Your task to perform on an android device: see creations saved in the google photos Image 0: 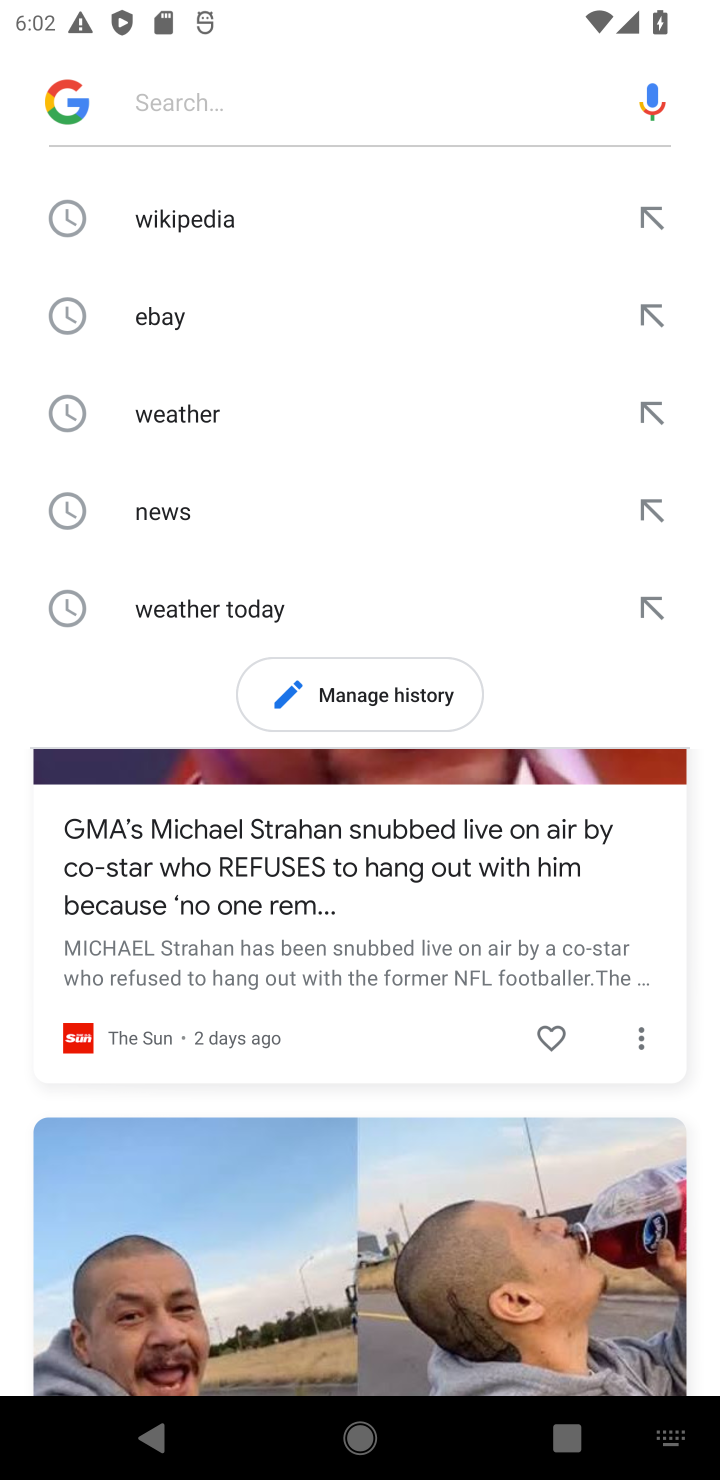
Step 0: press home button
Your task to perform on an android device: see creations saved in the google photos Image 1: 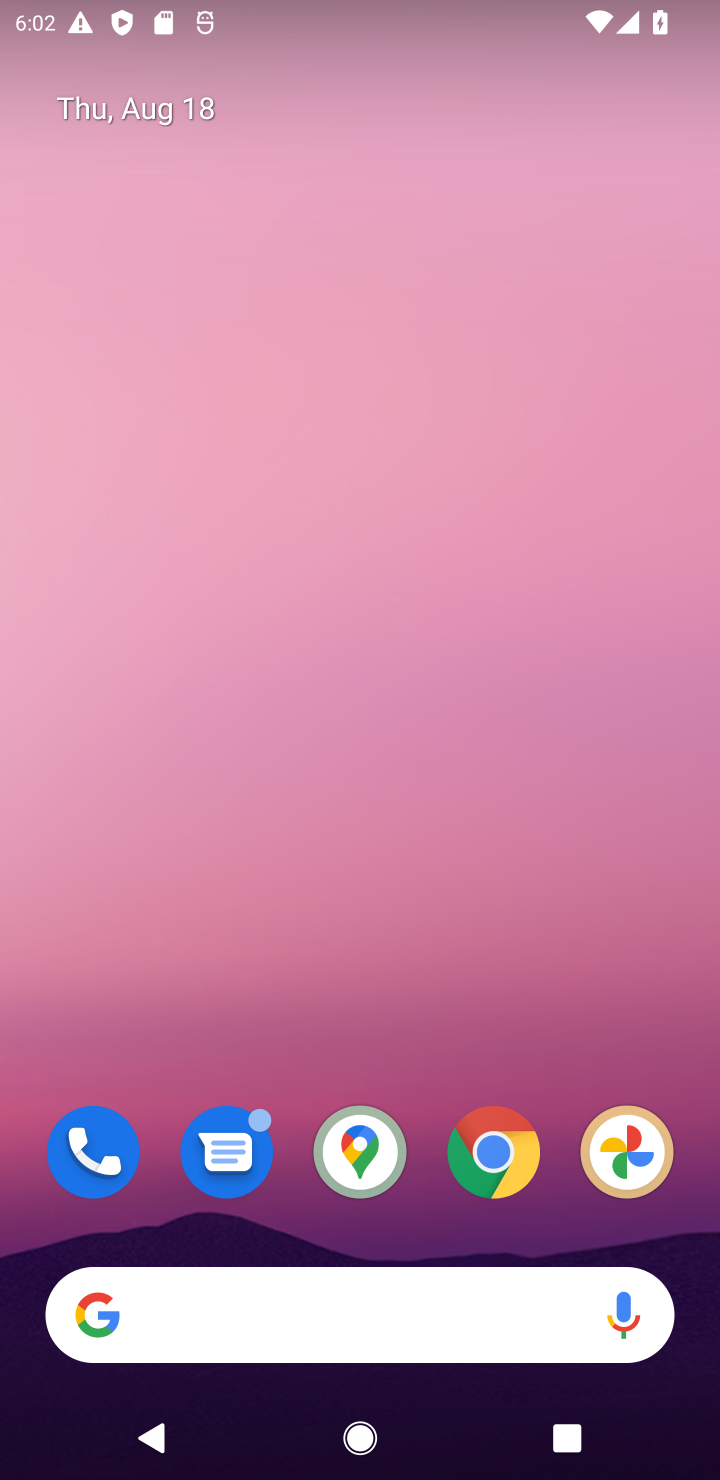
Step 1: drag from (445, 1189) to (514, 188)
Your task to perform on an android device: see creations saved in the google photos Image 2: 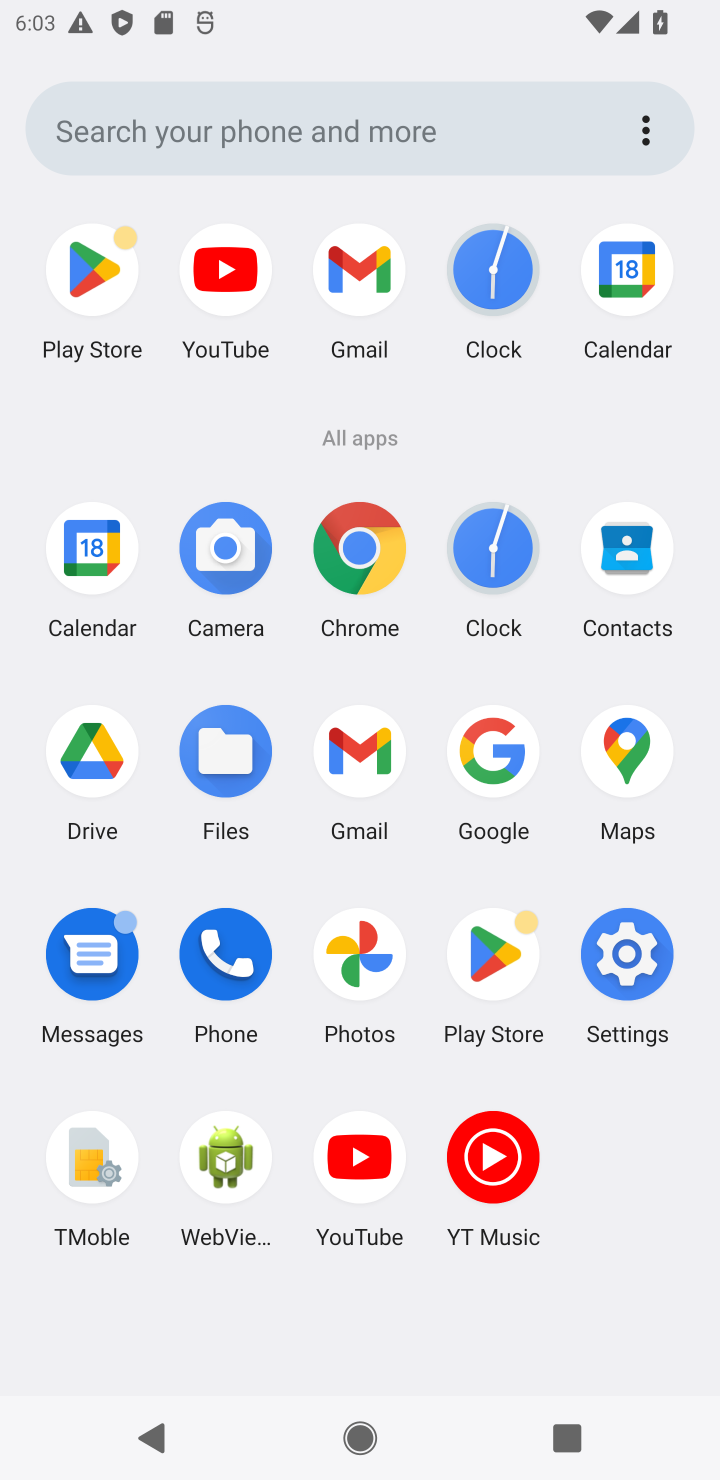
Step 2: click (362, 956)
Your task to perform on an android device: see creations saved in the google photos Image 3: 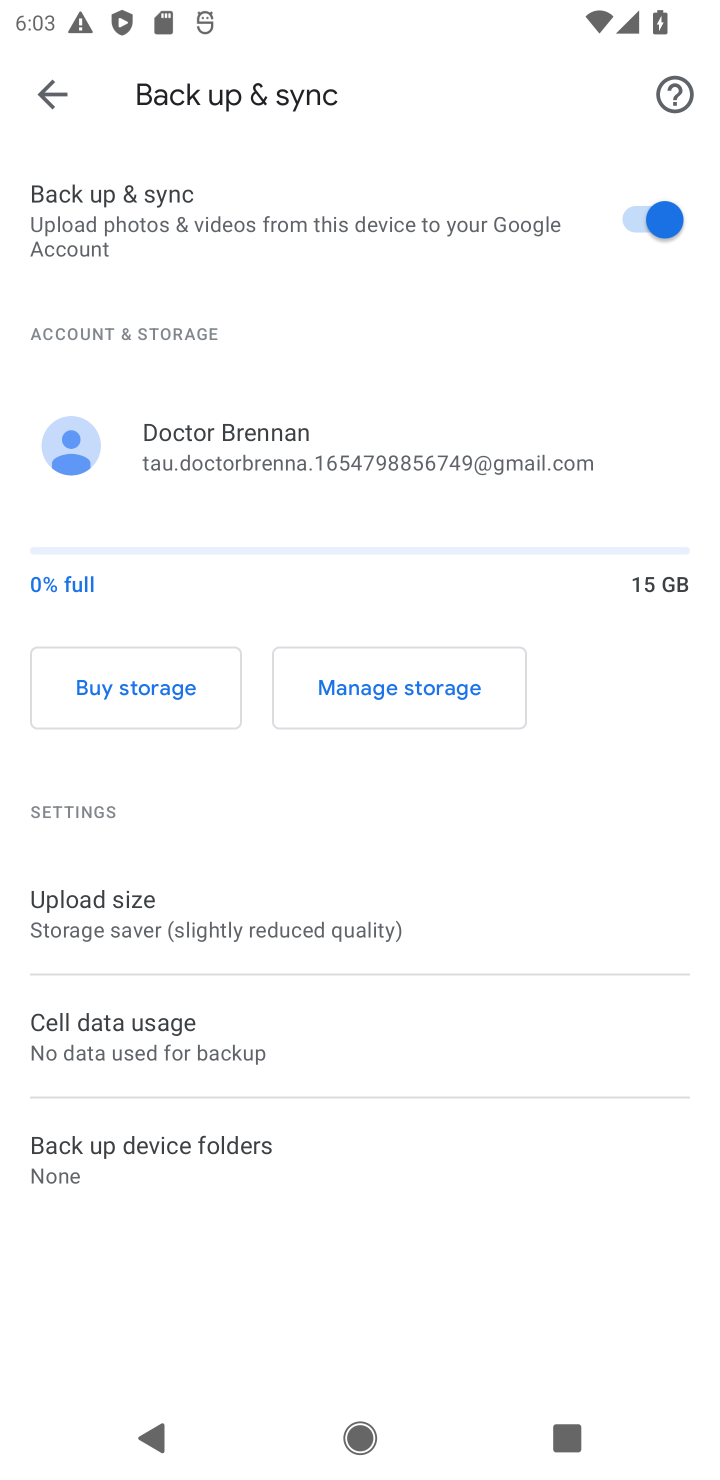
Step 3: click (58, 88)
Your task to perform on an android device: see creations saved in the google photos Image 4: 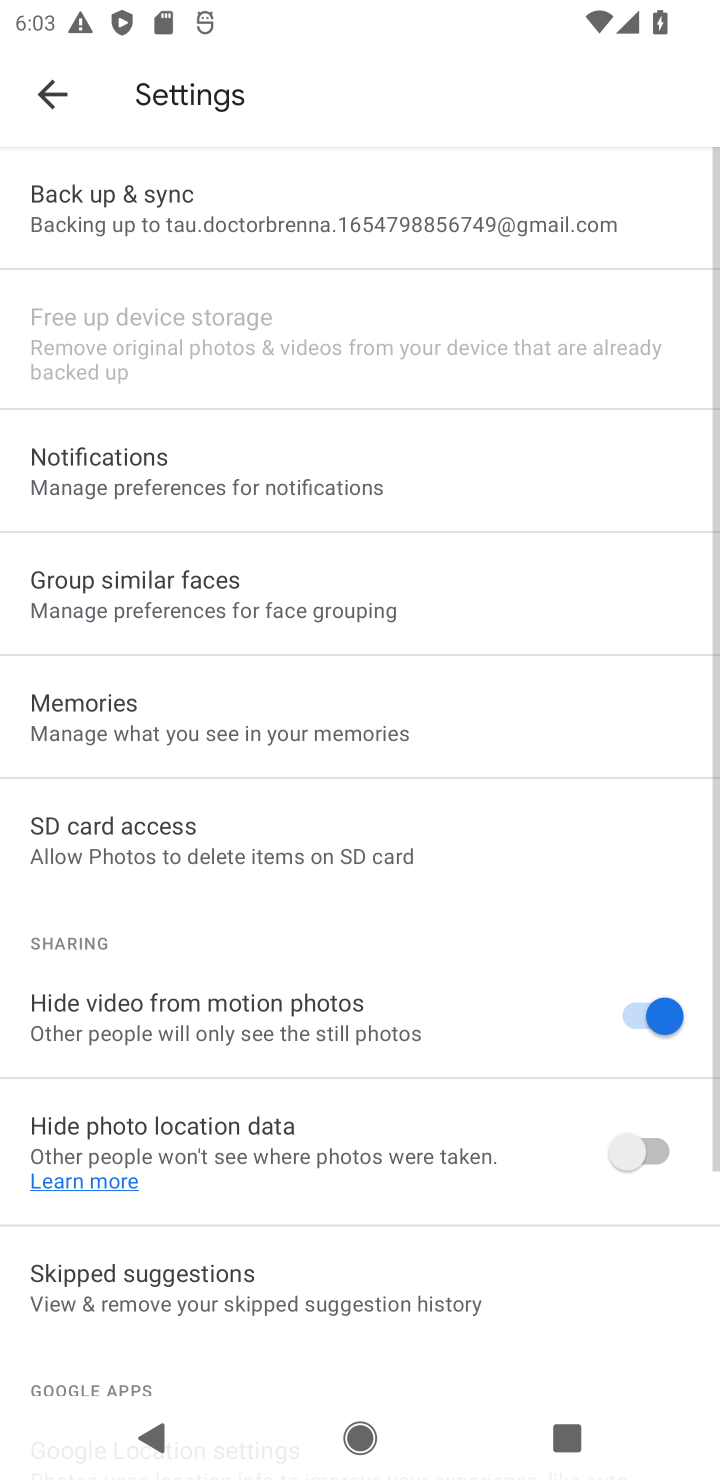
Step 4: click (58, 88)
Your task to perform on an android device: see creations saved in the google photos Image 5: 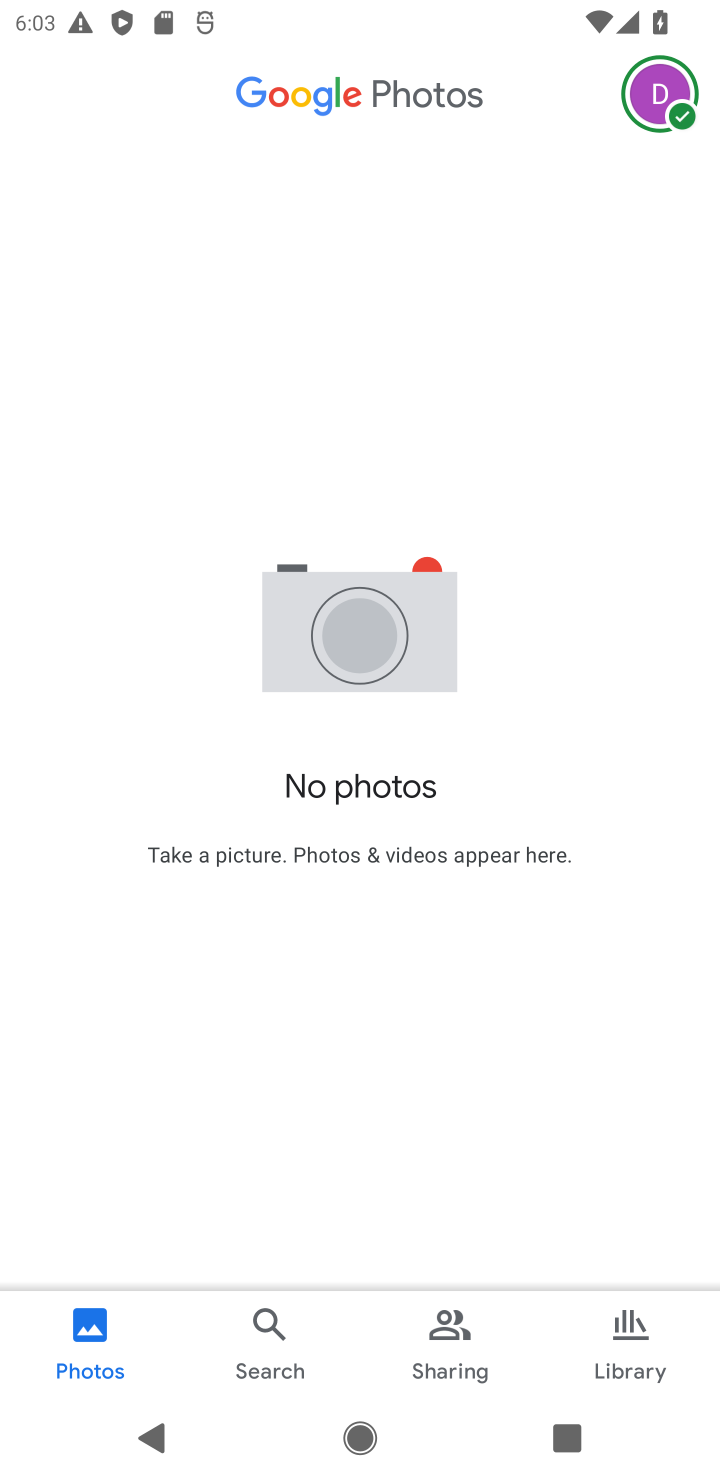
Step 5: click (271, 1363)
Your task to perform on an android device: see creations saved in the google photos Image 6: 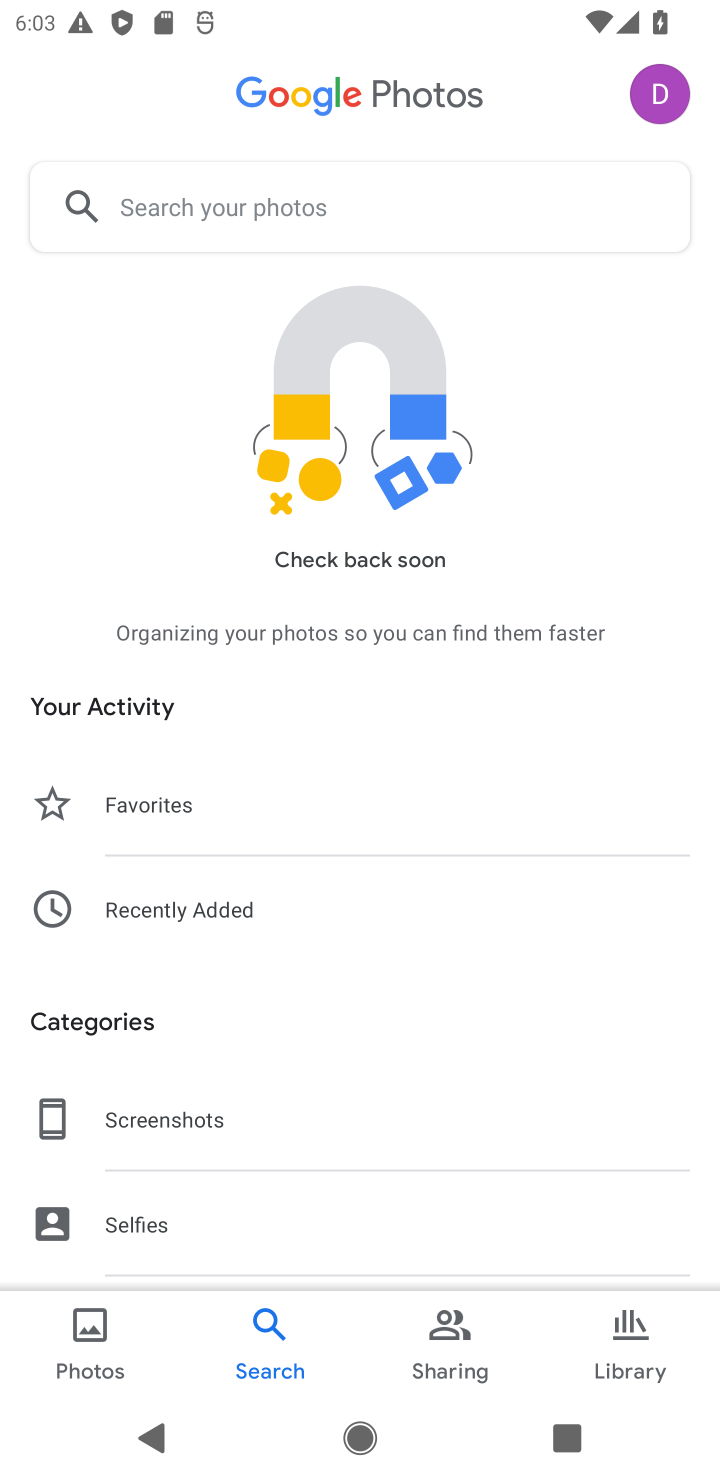
Step 6: drag from (252, 1118) to (212, 464)
Your task to perform on an android device: see creations saved in the google photos Image 7: 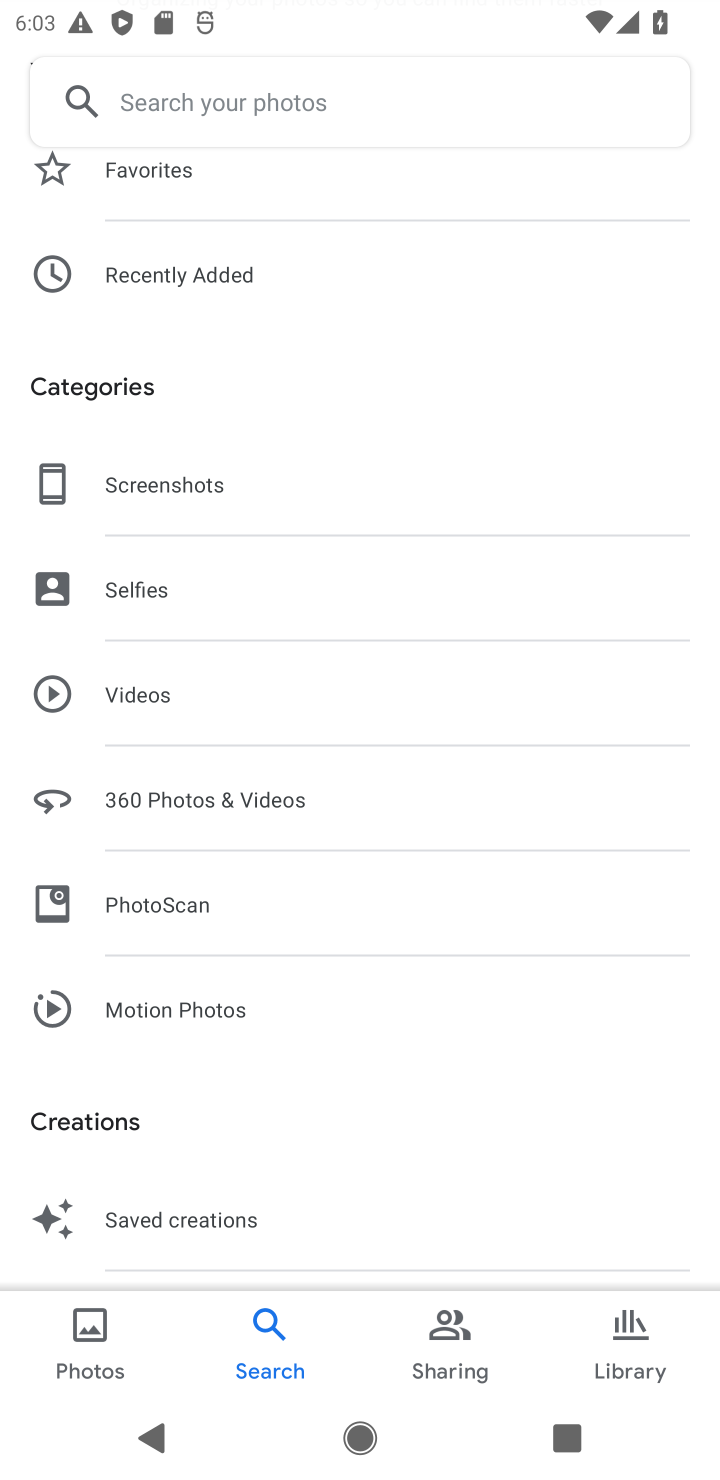
Step 7: click (182, 1216)
Your task to perform on an android device: see creations saved in the google photos Image 8: 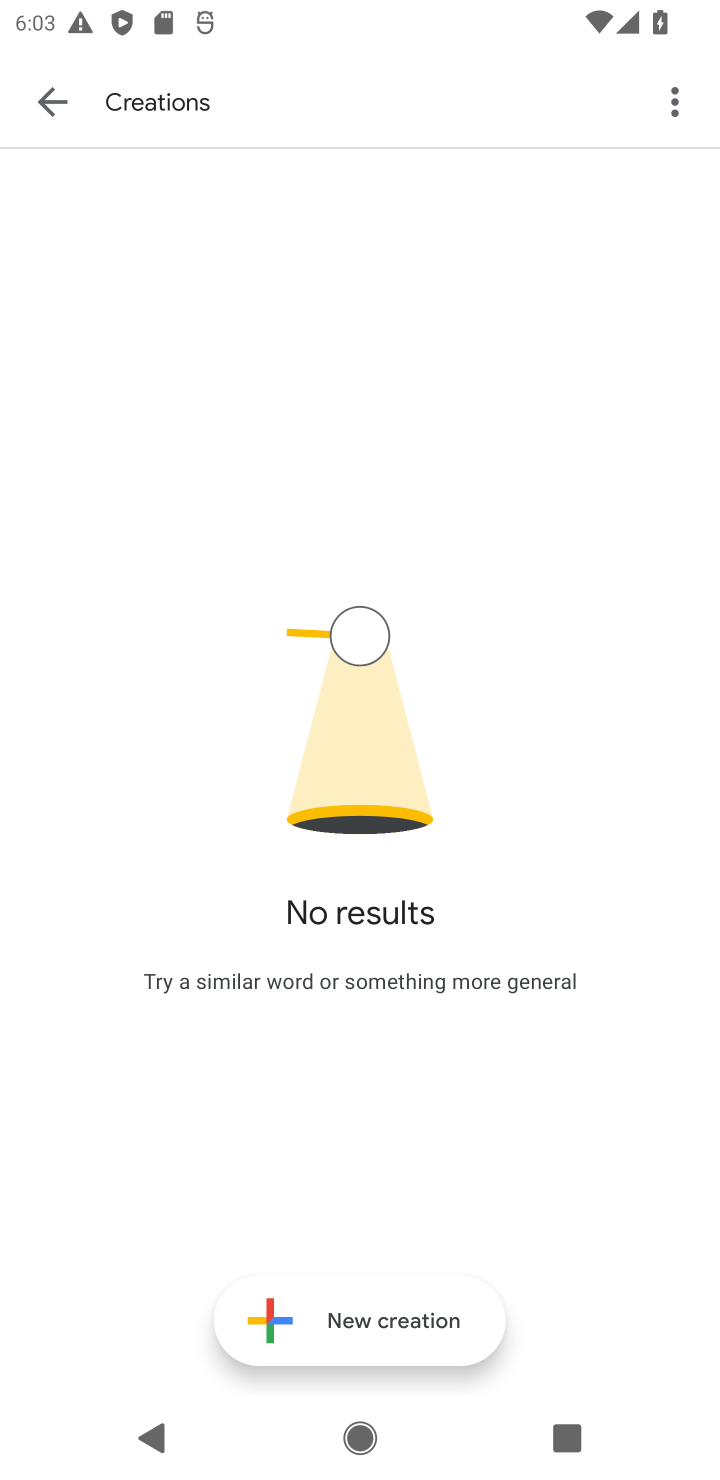
Step 8: task complete